Your task to perform on an android device: Set the phone to "Do not disturb". Image 0: 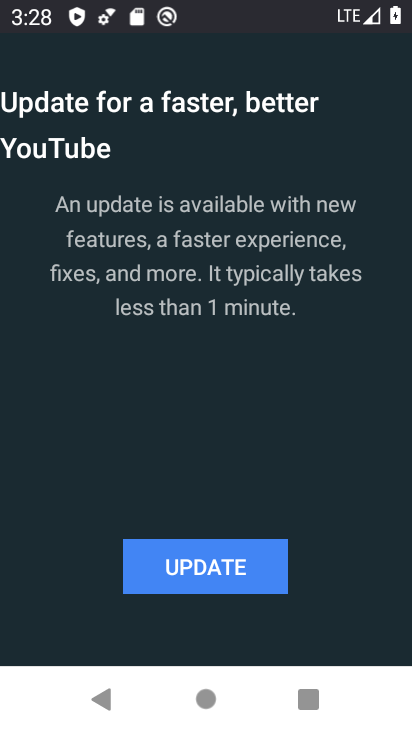
Step 0: press home button
Your task to perform on an android device: Set the phone to "Do not disturb". Image 1: 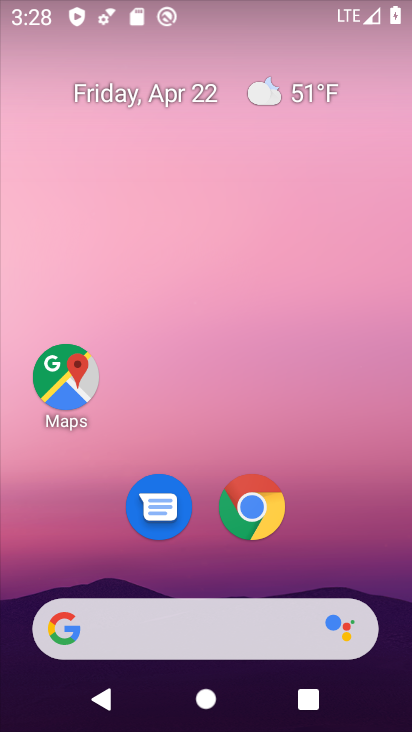
Step 1: drag from (242, 583) to (329, 31)
Your task to perform on an android device: Set the phone to "Do not disturb". Image 2: 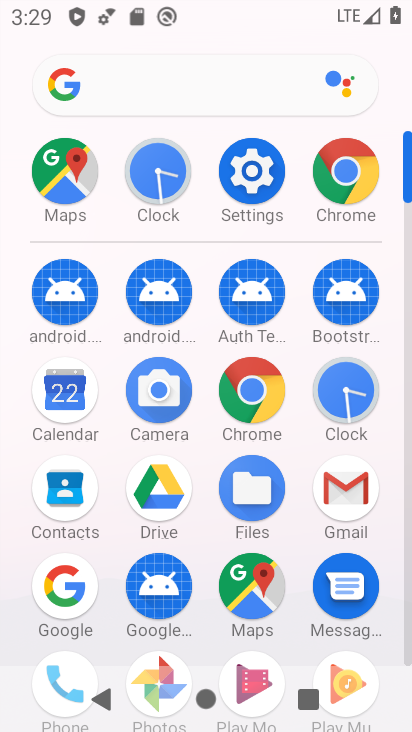
Step 2: drag from (257, 8) to (133, 583)
Your task to perform on an android device: Set the phone to "Do not disturb". Image 3: 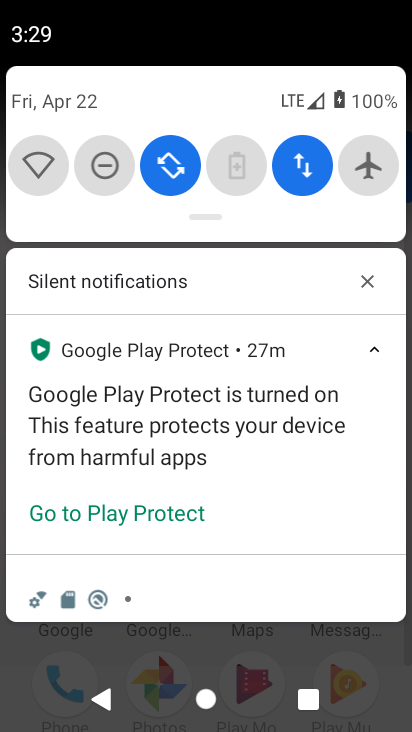
Step 3: click (98, 162)
Your task to perform on an android device: Set the phone to "Do not disturb". Image 4: 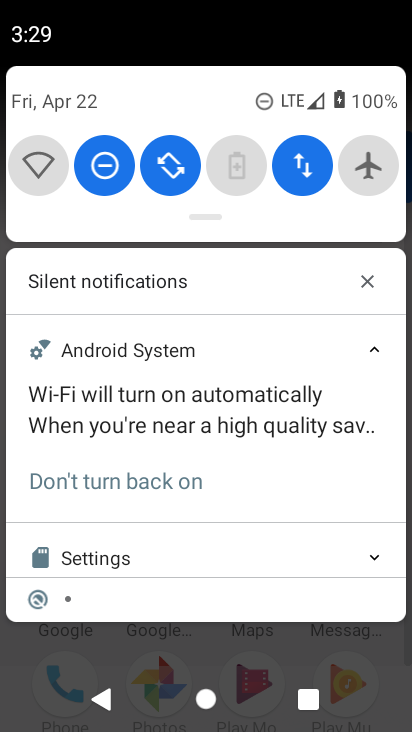
Step 4: task complete